Your task to perform on an android device: Go to wifi settings Image 0: 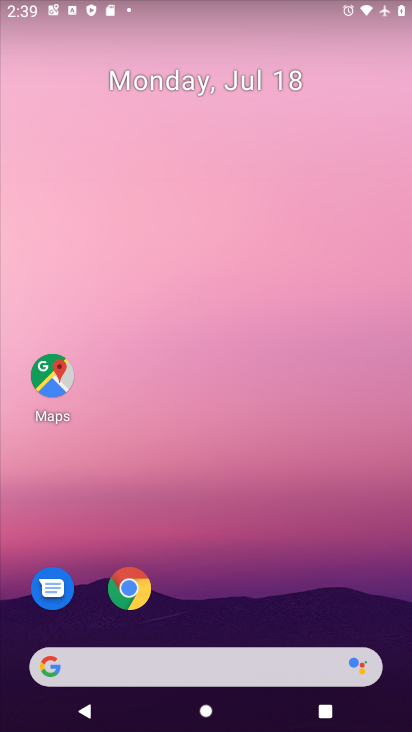
Step 0: drag from (275, 614) to (334, 155)
Your task to perform on an android device: Go to wifi settings Image 1: 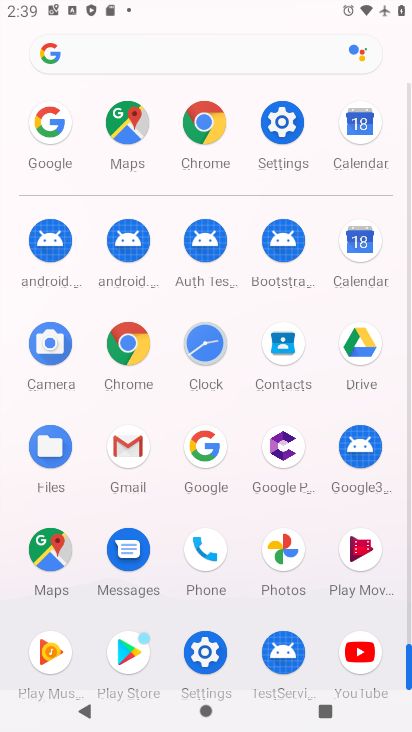
Step 1: click (296, 147)
Your task to perform on an android device: Go to wifi settings Image 2: 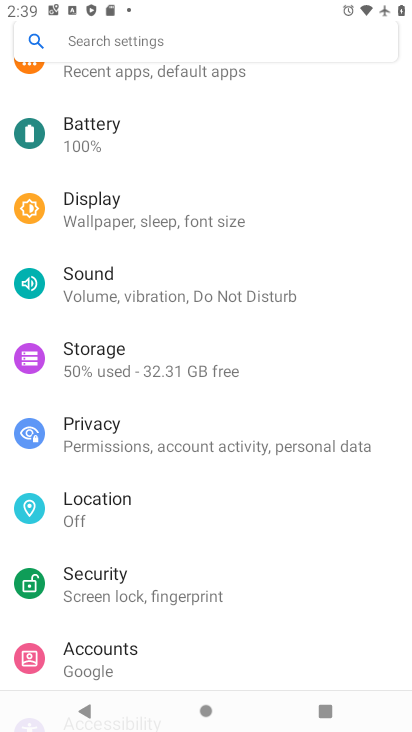
Step 2: drag from (174, 379) to (150, 612)
Your task to perform on an android device: Go to wifi settings Image 3: 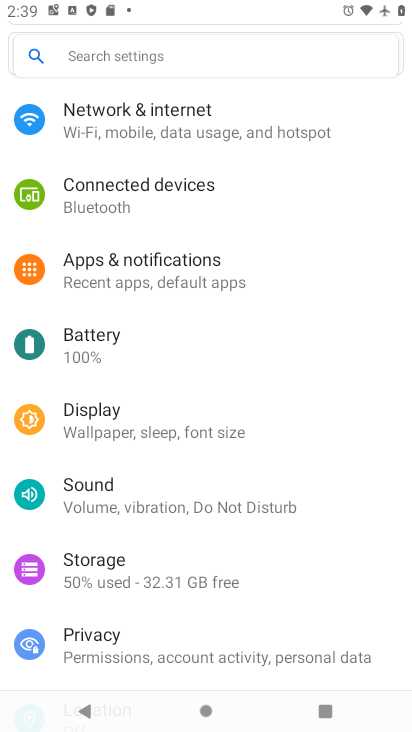
Step 3: drag from (166, 308) to (147, 637)
Your task to perform on an android device: Go to wifi settings Image 4: 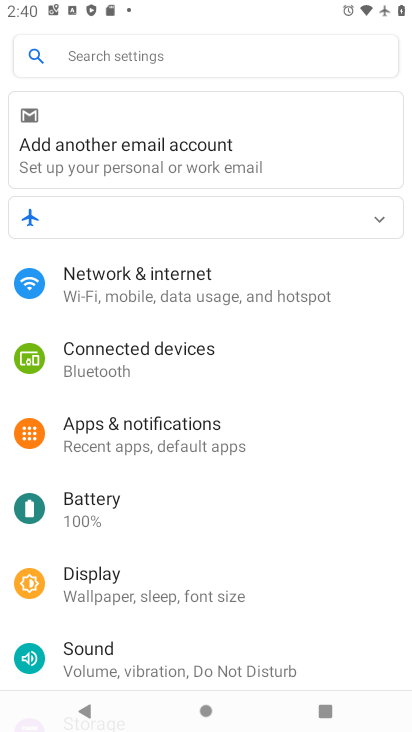
Step 4: click (156, 295)
Your task to perform on an android device: Go to wifi settings Image 5: 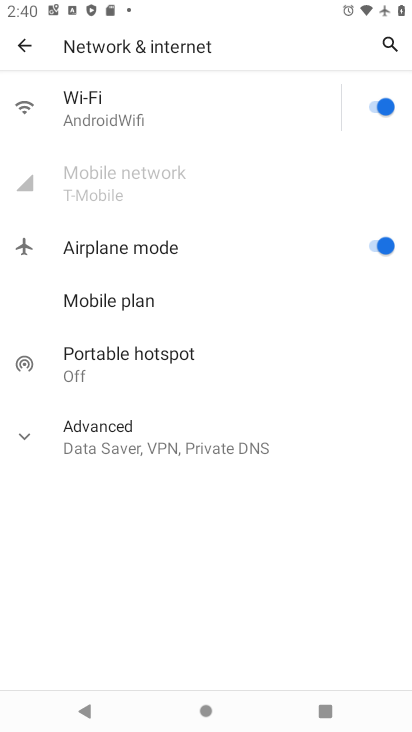
Step 5: click (157, 124)
Your task to perform on an android device: Go to wifi settings Image 6: 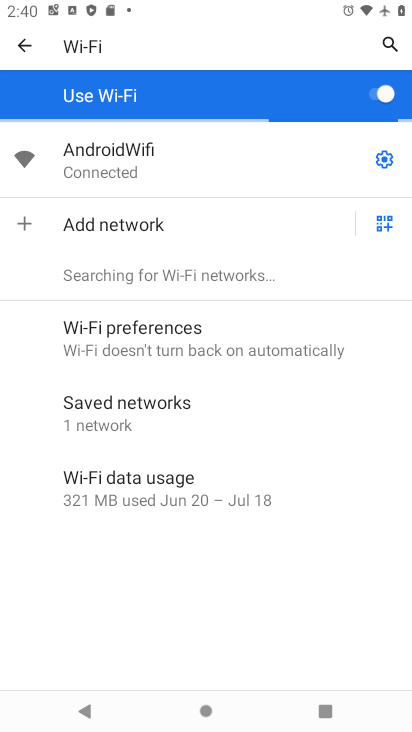
Step 6: task complete